Your task to perform on an android device: Show me productivity apps on the Play Store Image 0: 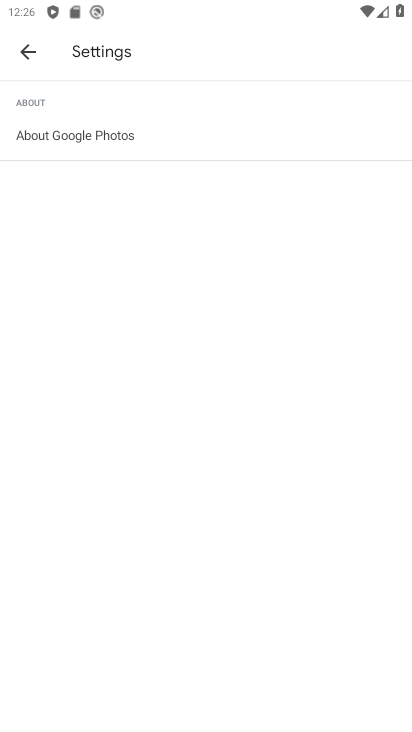
Step 0: press home button
Your task to perform on an android device: Show me productivity apps on the Play Store Image 1: 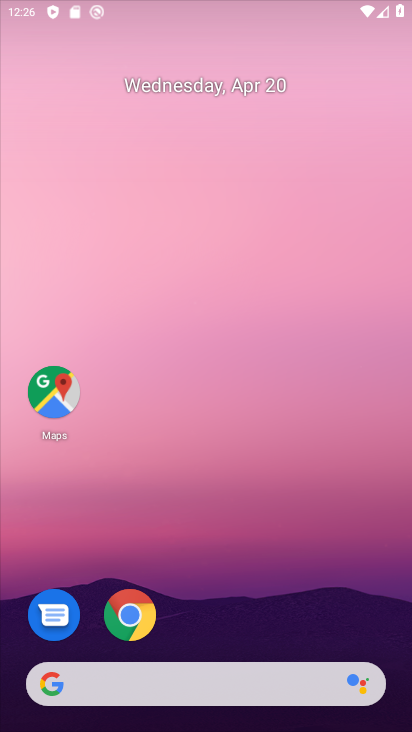
Step 1: drag from (196, 527) to (179, 74)
Your task to perform on an android device: Show me productivity apps on the Play Store Image 2: 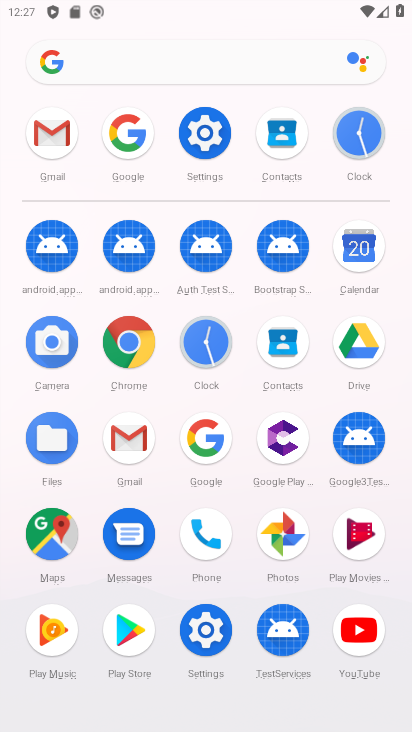
Step 2: click (119, 635)
Your task to perform on an android device: Show me productivity apps on the Play Store Image 3: 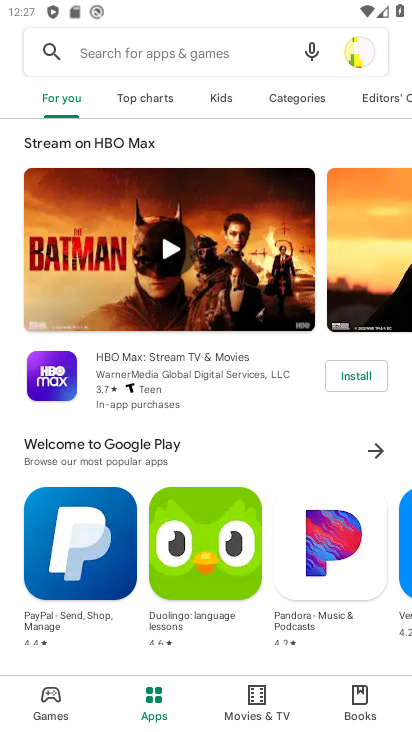
Step 3: task complete